Your task to perform on an android device: Go to Wikipedia Image 0: 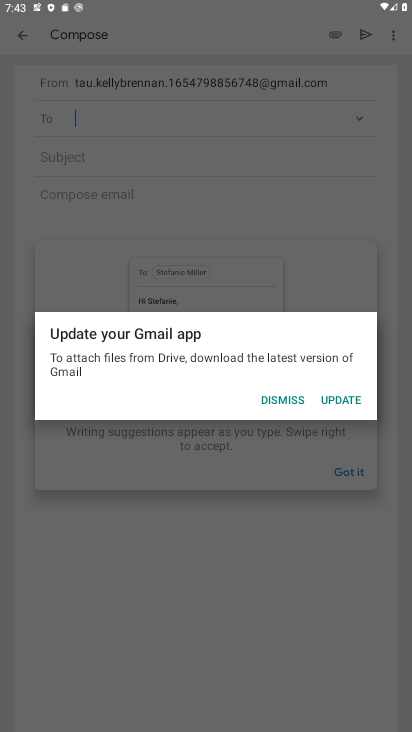
Step 0: press home button
Your task to perform on an android device: Go to Wikipedia Image 1: 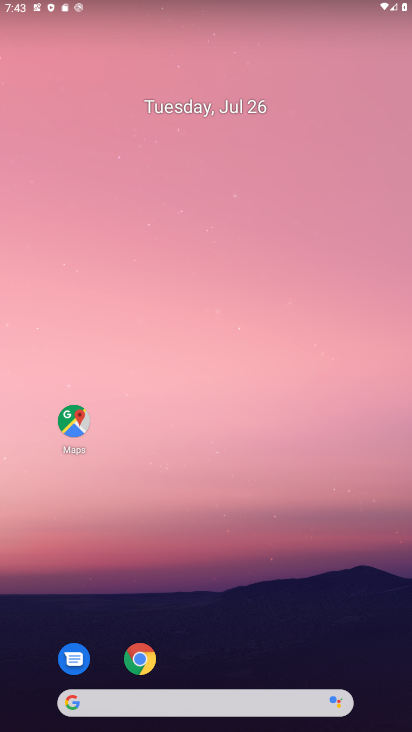
Step 1: click (142, 669)
Your task to perform on an android device: Go to Wikipedia Image 2: 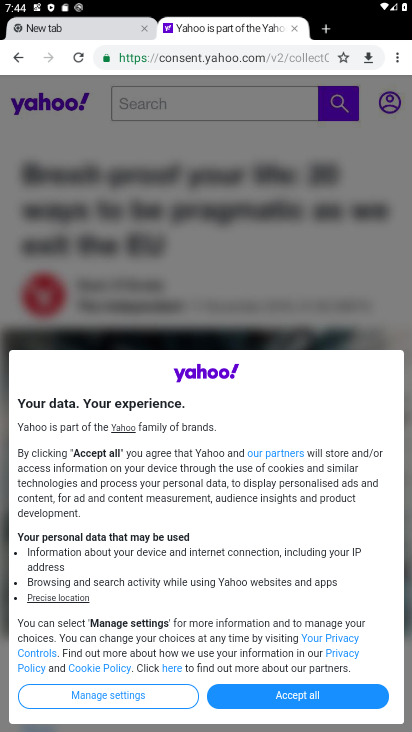
Step 2: click (324, 26)
Your task to perform on an android device: Go to Wikipedia Image 3: 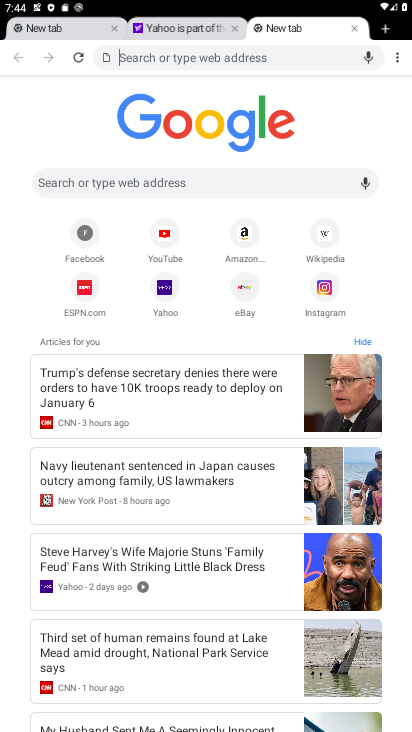
Step 3: click (325, 245)
Your task to perform on an android device: Go to Wikipedia Image 4: 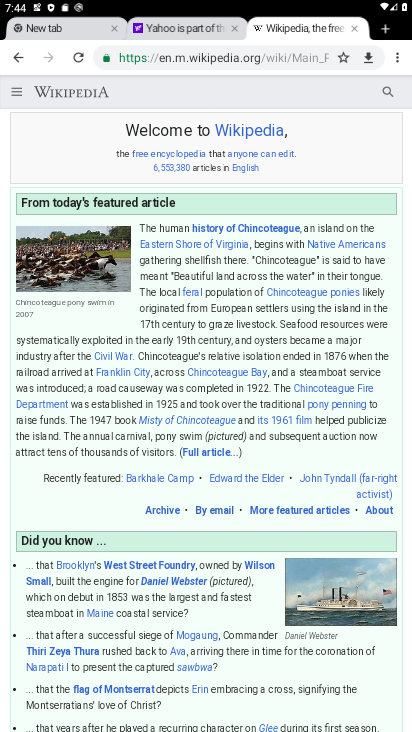
Step 4: task complete